Your task to perform on an android device: turn notification dots on Image 0: 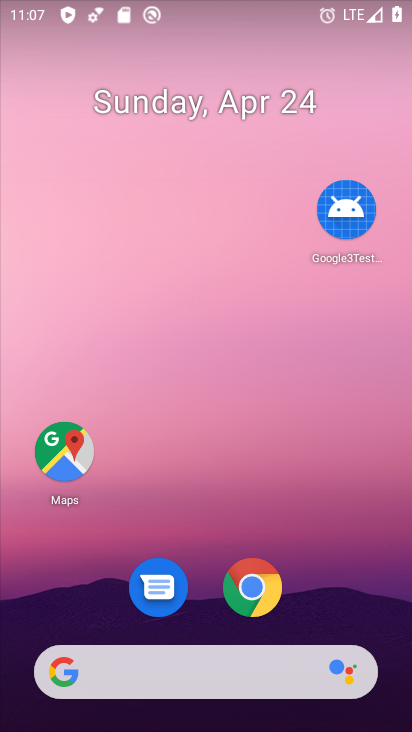
Step 0: drag from (341, 562) to (335, 96)
Your task to perform on an android device: turn notification dots on Image 1: 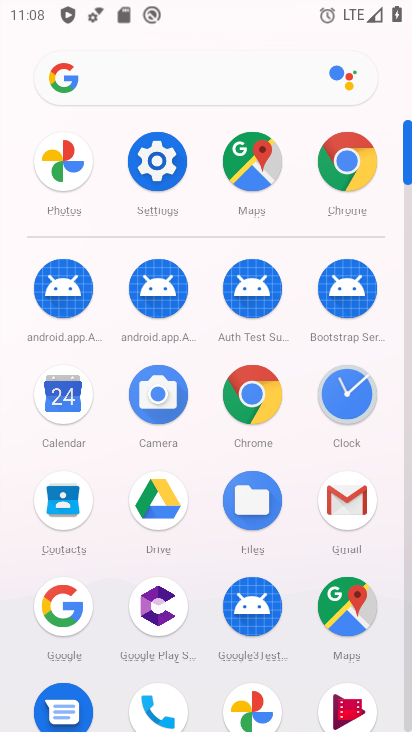
Step 1: click (159, 170)
Your task to perform on an android device: turn notification dots on Image 2: 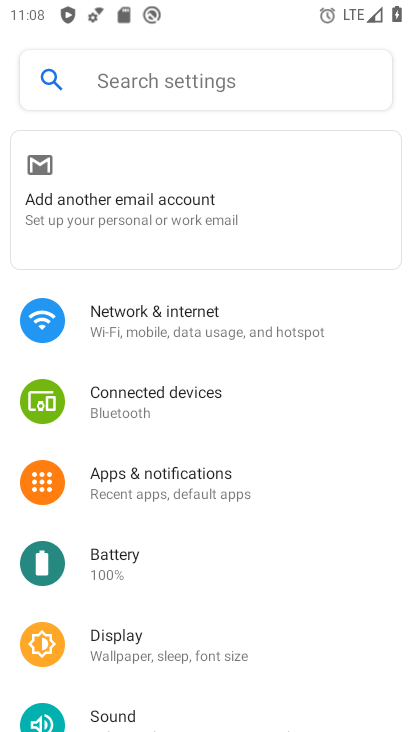
Step 2: click (167, 477)
Your task to perform on an android device: turn notification dots on Image 3: 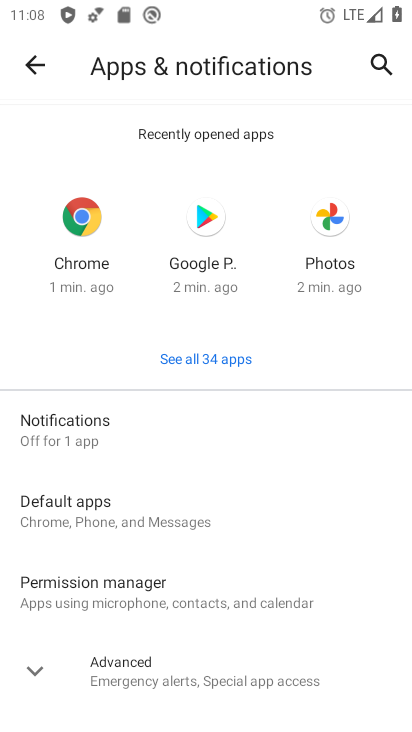
Step 3: drag from (222, 640) to (192, 417)
Your task to perform on an android device: turn notification dots on Image 4: 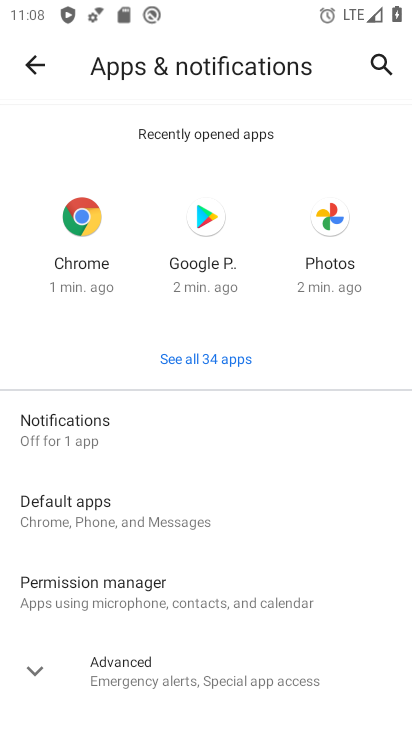
Step 4: click (81, 427)
Your task to perform on an android device: turn notification dots on Image 5: 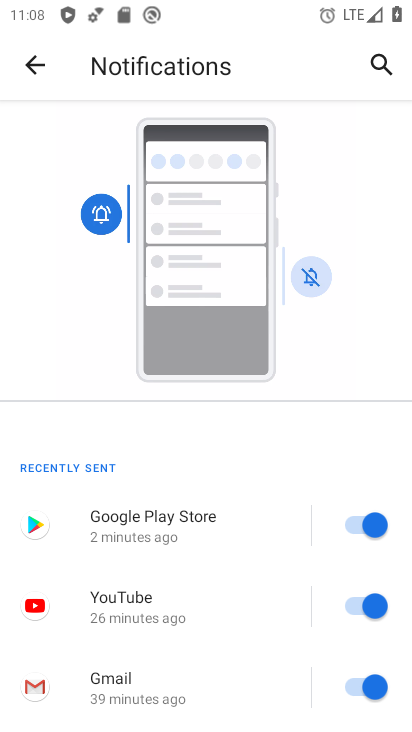
Step 5: drag from (153, 682) to (127, 248)
Your task to perform on an android device: turn notification dots on Image 6: 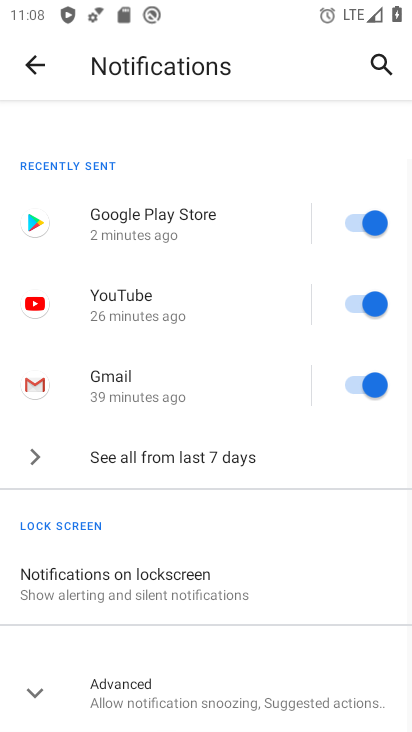
Step 6: drag from (175, 635) to (179, 384)
Your task to perform on an android device: turn notification dots on Image 7: 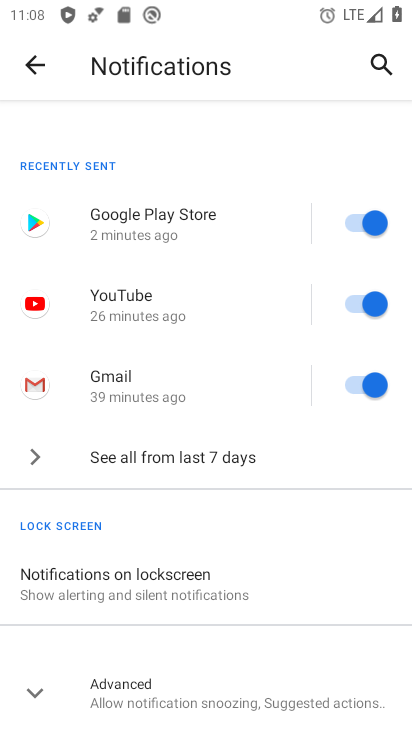
Step 7: click (181, 696)
Your task to perform on an android device: turn notification dots on Image 8: 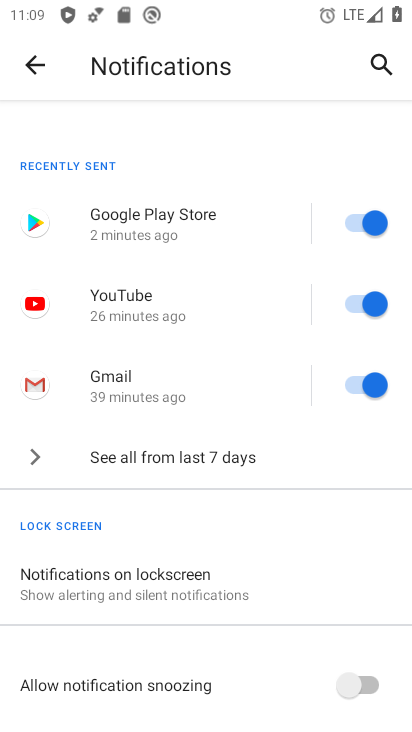
Step 8: task complete